Your task to perform on an android device: Go to Maps Image 0: 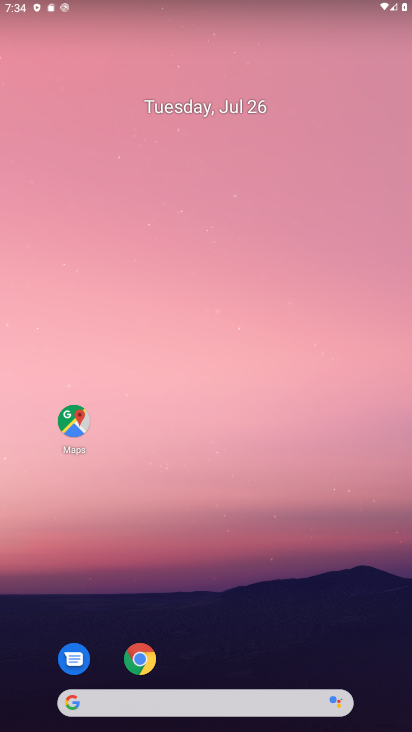
Step 0: click (72, 436)
Your task to perform on an android device: Go to Maps Image 1: 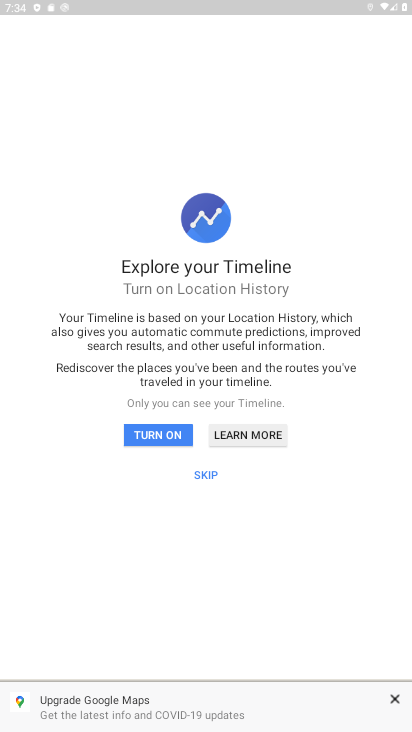
Step 1: click (206, 473)
Your task to perform on an android device: Go to Maps Image 2: 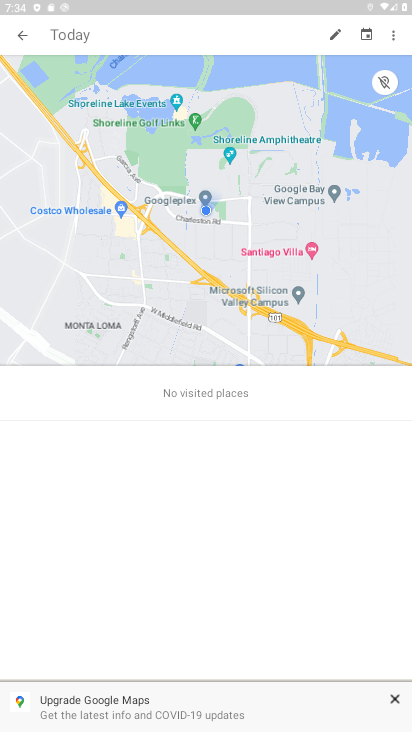
Step 2: click (13, 37)
Your task to perform on an android device: Go to Maps Image 3: 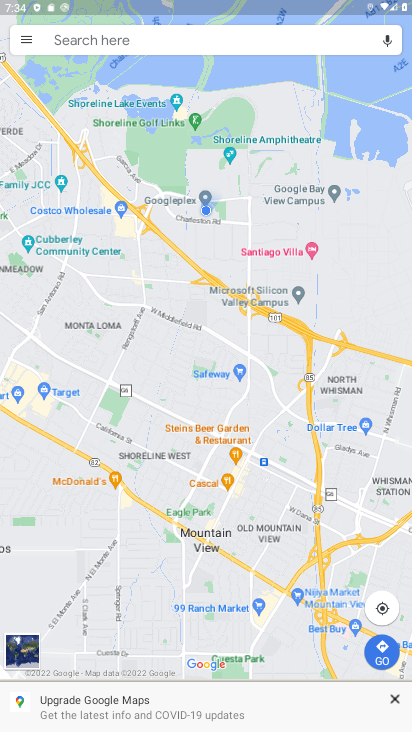
Step 3: click (13, 37)
Your task to perform on an android device: Go to Maps Image 4: 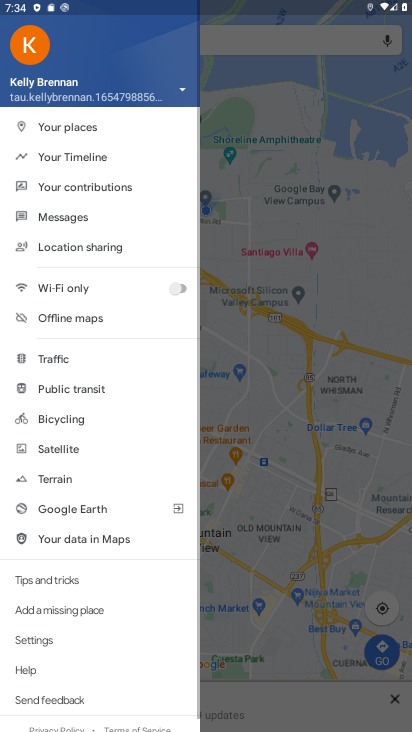
Step 4: click (290, 177)
Your task to perform on an android device: Go to Maps Image 5: 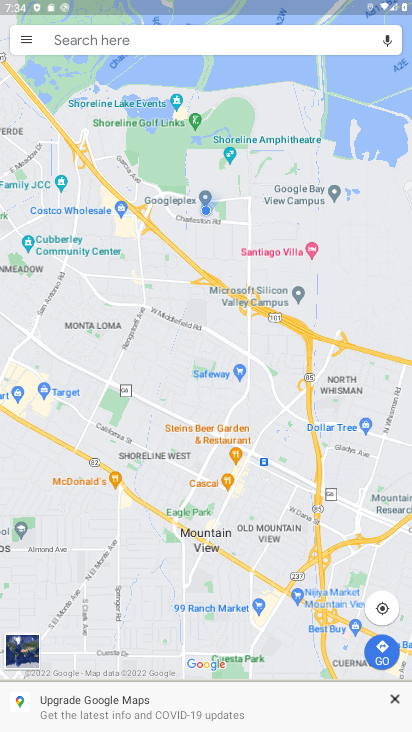
Step 5: task complete